Your task to perform on an android device: Search for the best 100% cotton t-shirts Image 0: 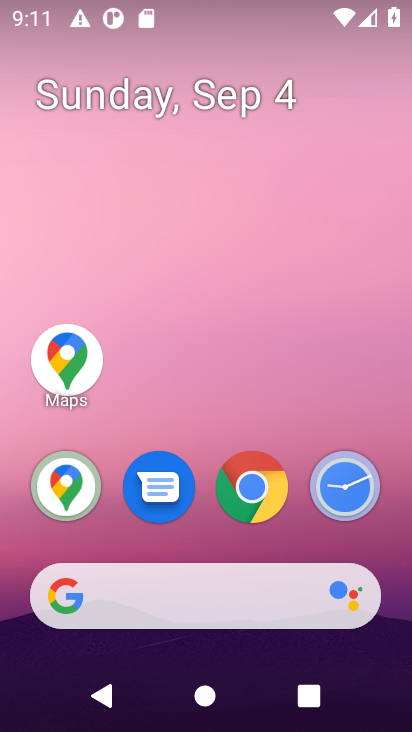
Step 0: click (97, 355)
Your task to perform on an android device: Search for the best 100% cotton t-shirts Image 1: 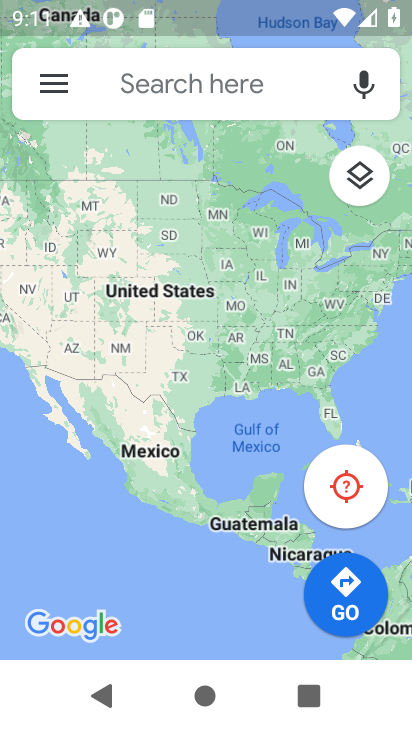
Step 1: task complete